Your task to perform on an android device: open chrome and create a bookmark for the current page Image 0: 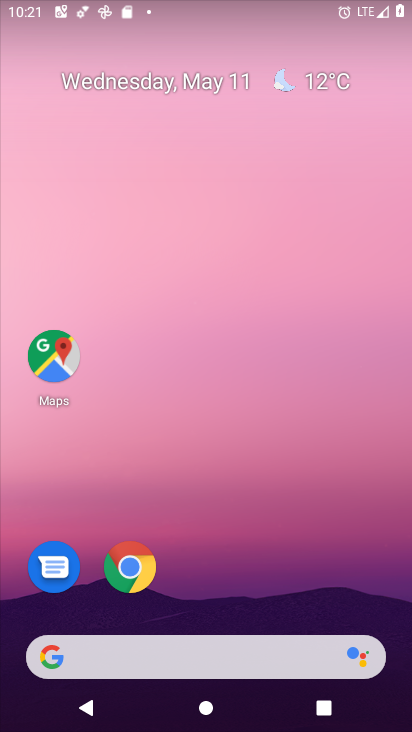
Step 0: click (136, 575)
Your task to perform on an android device: open chrome and create a bookmark for the current page Image 1: 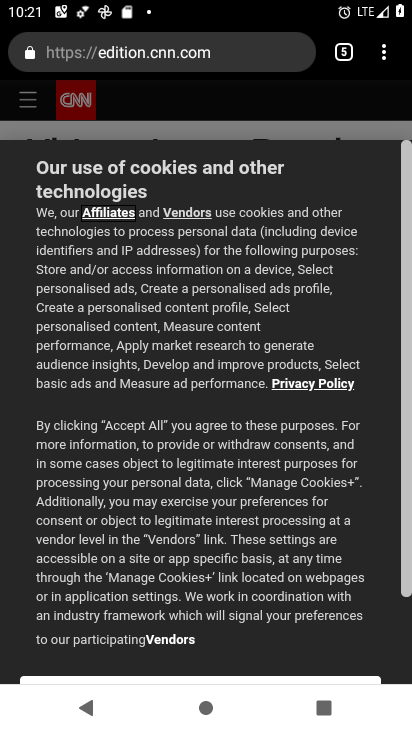
Step 1: click (391, 53)
Your task to perform on an android device: open chrome and create a bookmark for the current page Image 2: 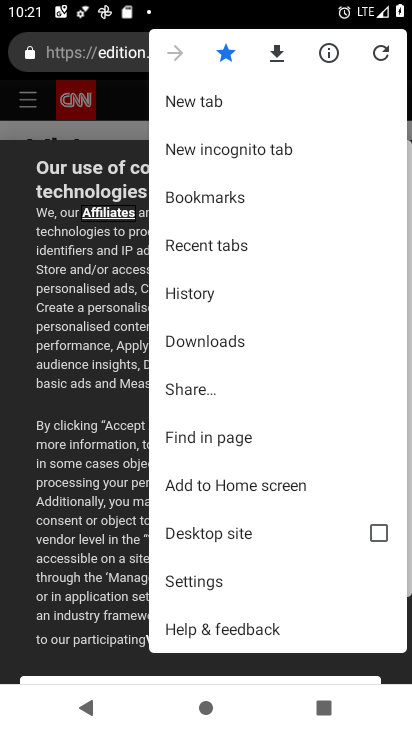
Step 2: task complete